Your task to perform on an android device: Open ESPN.com Image 0: 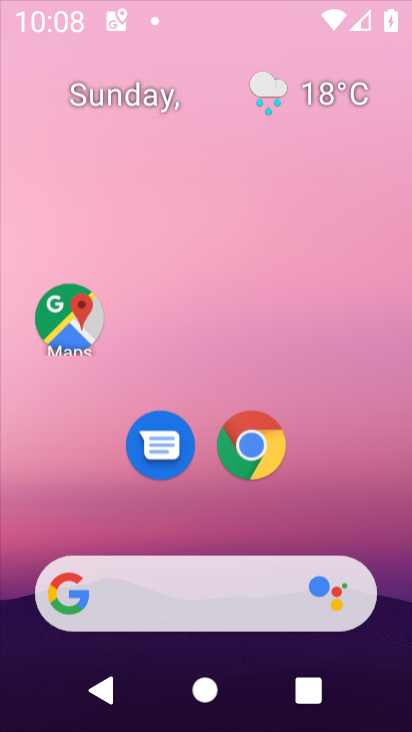
Step 0: press home button
Your task to perform on an android device: Open ESPN.com Image 1: 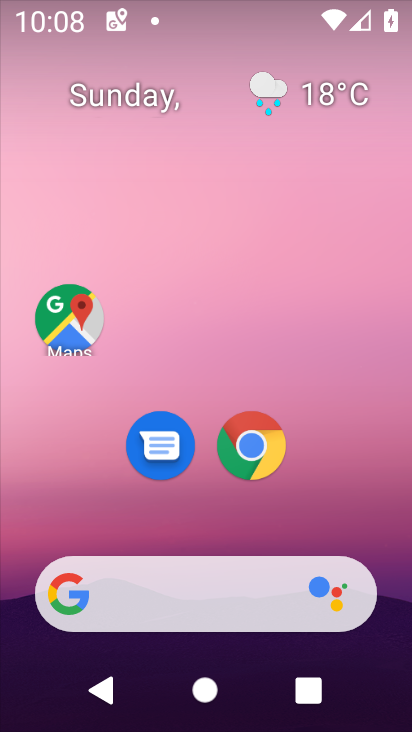
Step 1: click (252, 438)
Your task to perform on an android device: Open ESPN.com Image 2: 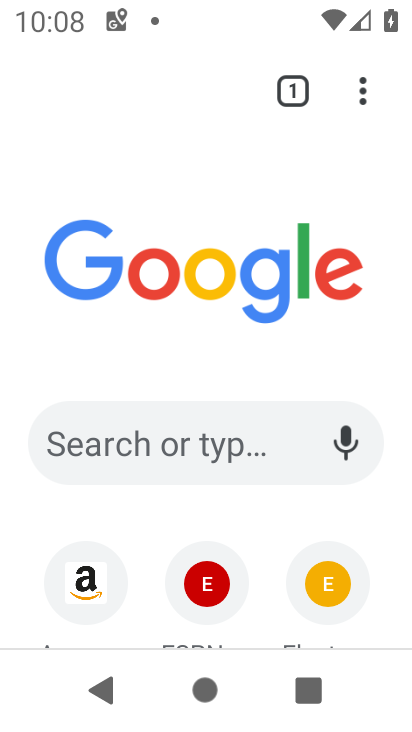
Step 2: click (207, 575)
Your task to perform on an android device: Open ESPN.com Image 3: 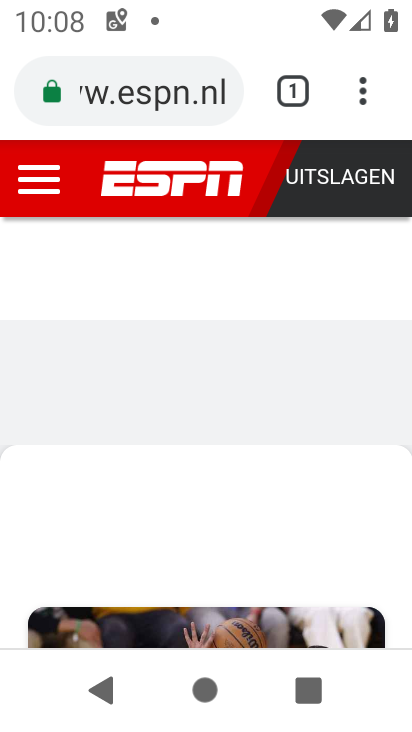
Step 3: drag from (224, 590) to (219, 213)
Your task to perform on an android device: Open ESPN.com Image 4: 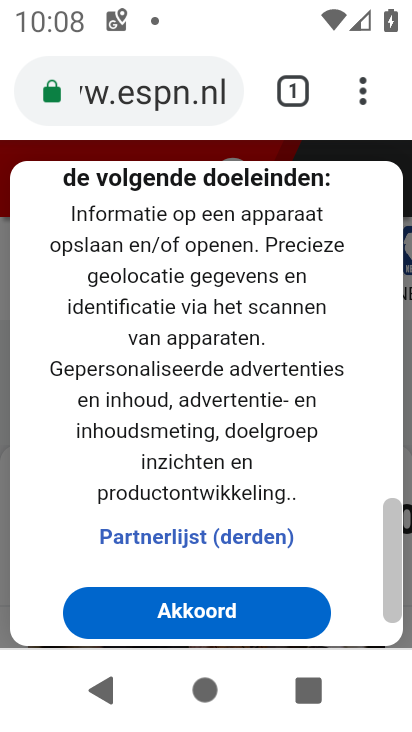
Step 4: click (192, 607)
Your task to perform on an android device: Open ESPN.com Image 5: 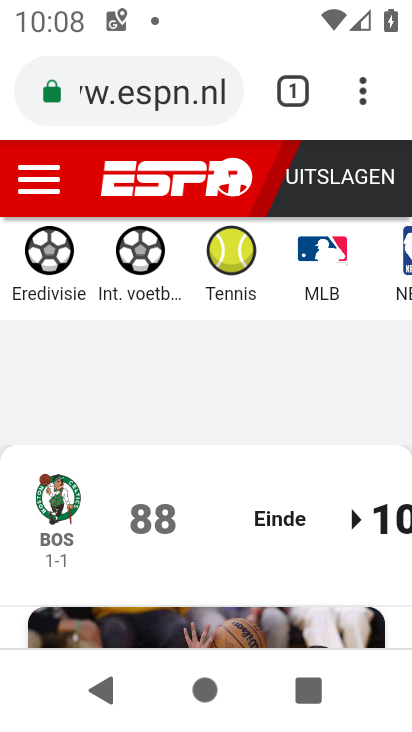
Step 5: task complete